Your task to perform on an android device: toggle priority inbox in the gmail app Image 0: 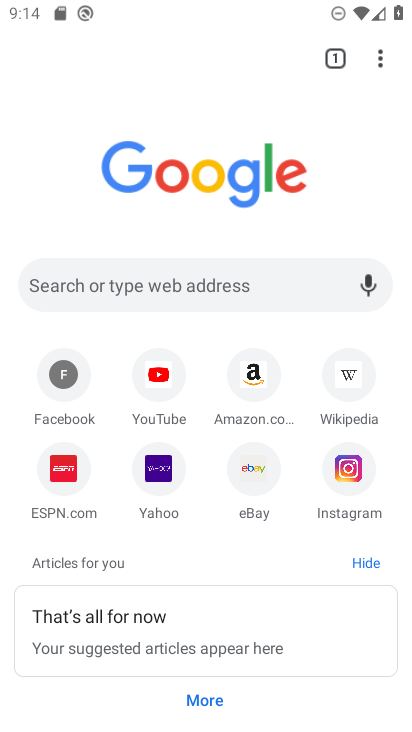
Step 0: press home button
Your task to perform on an android device: toggle priority inbox in the gmail app Image 1: 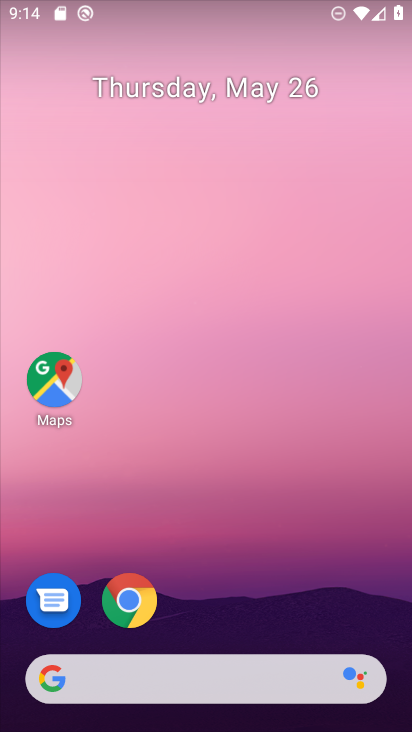
Step 1: drag from (187, 659) to (227, 273)
Your task to perform on an android device: toggle priority inbox in the gmail app Image 2: 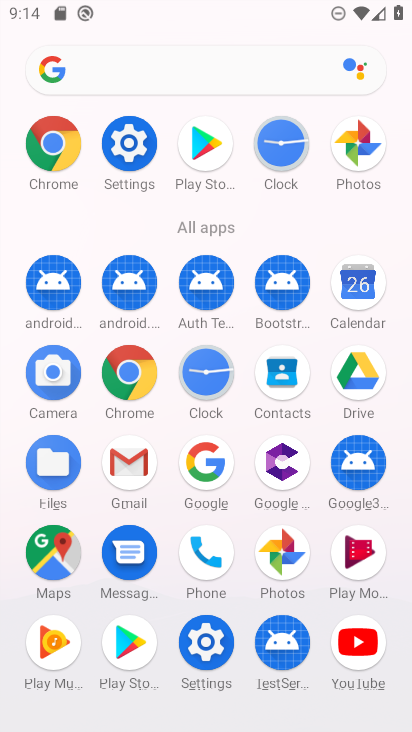
Step 2: click (129, 462)
Your task to perform on an android device: toggle priority inbox in the gmail app Image 3: 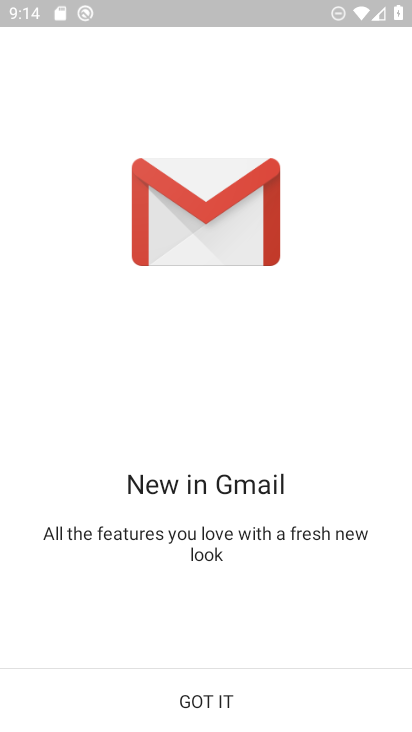
Step 3: click (217, 706)
Your task to perform on an android device: toggle priority inbox in the gmail app Image 4: 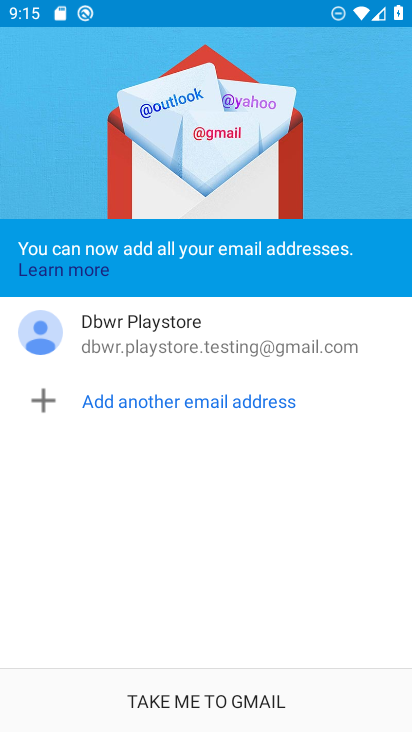
Step 4: click (233, 705)
Your task to perform on an android device: toggle priority inbox in the gmail app Image 5: 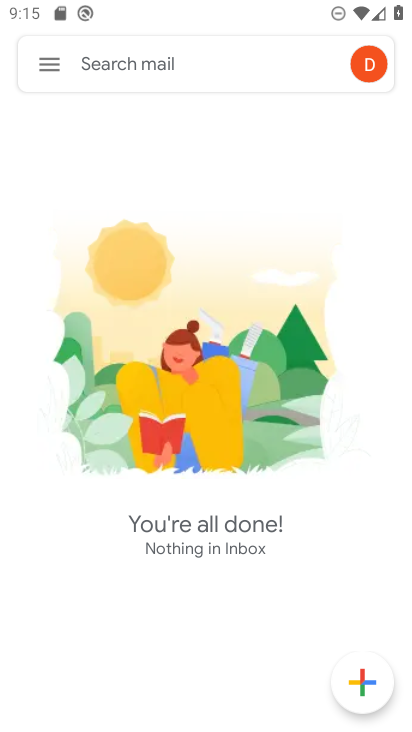
Step 5: click (51, 68)
Your task to perform on an android device: toggle priority inbox in the gmail app Image 6: 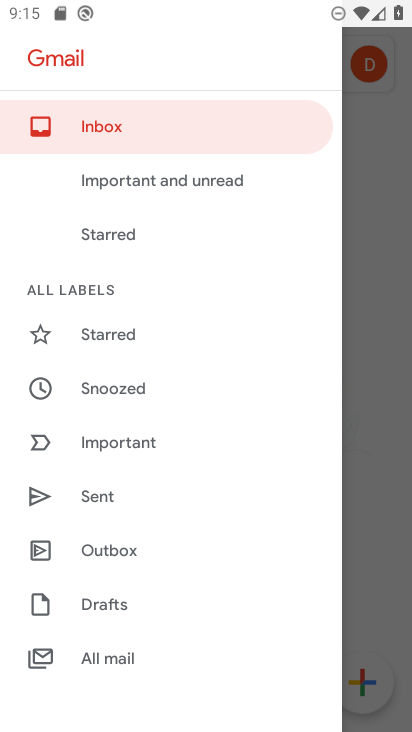
Step 6: drag from (149, 684) to (151, 133)
Your task to perform on an android device: toggle priority inbox in the gmail app Image 7: 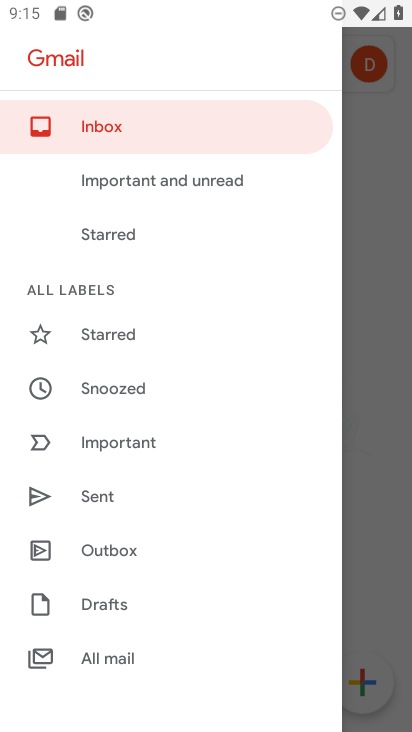
Step 7: drag from (84, 677) to (80, 270)
Your task to perform on an android device: toggle priority inbox in the gmail app Image 8: 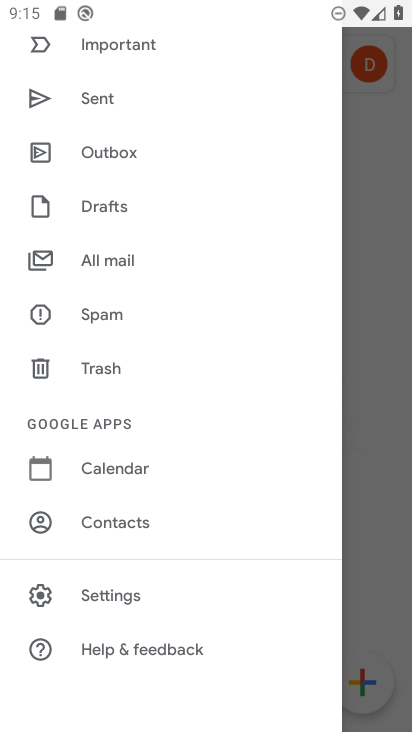
Step 8: click (108, 602)
Your task to perform on an android device: toggle priority inbox in the gmail app Image 9: 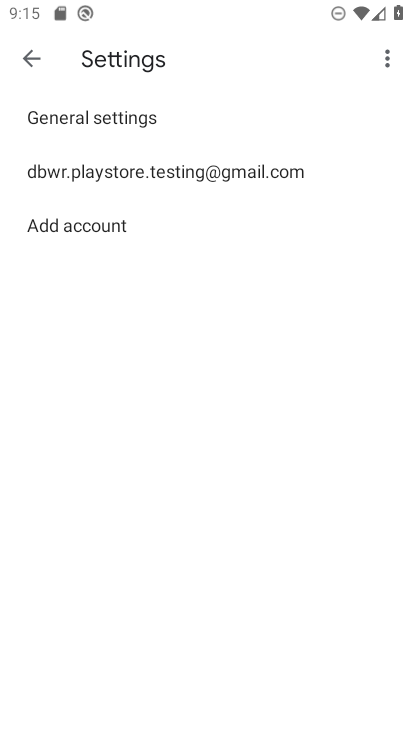
Step 9: click (107, 174)
Your task to perform on an android device: toggle priority inbox in the gmail app Image 10: 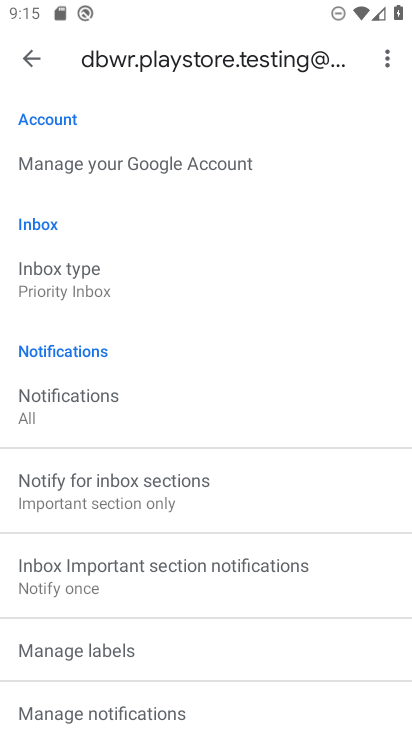
Step 10: click (79, 279)
Your task to perform on an android device: toggle priority inbox in the gmail app Image 11: 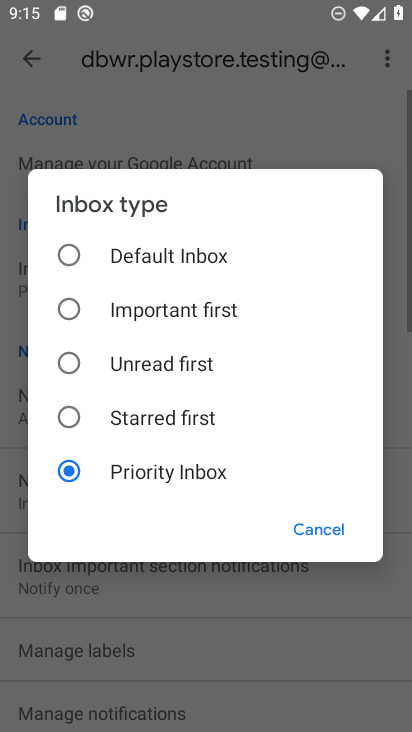
Step 11: click (88, 315)
Your task to perform on an android device: toggle priority inbox in the gmail app Image 12: 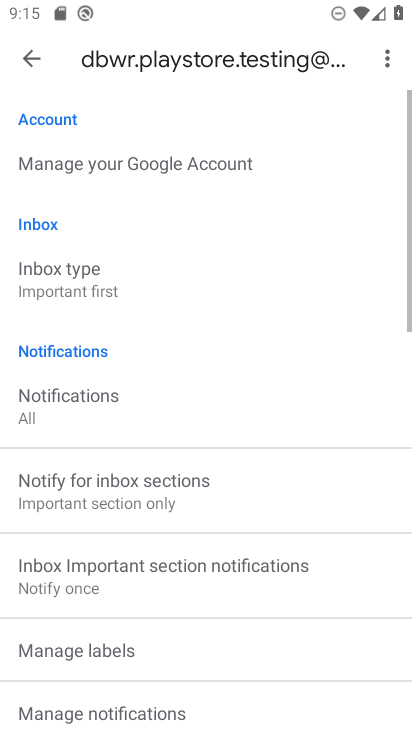
Step 12: task complete